Your task to perform on an android device: check android version Image 0: 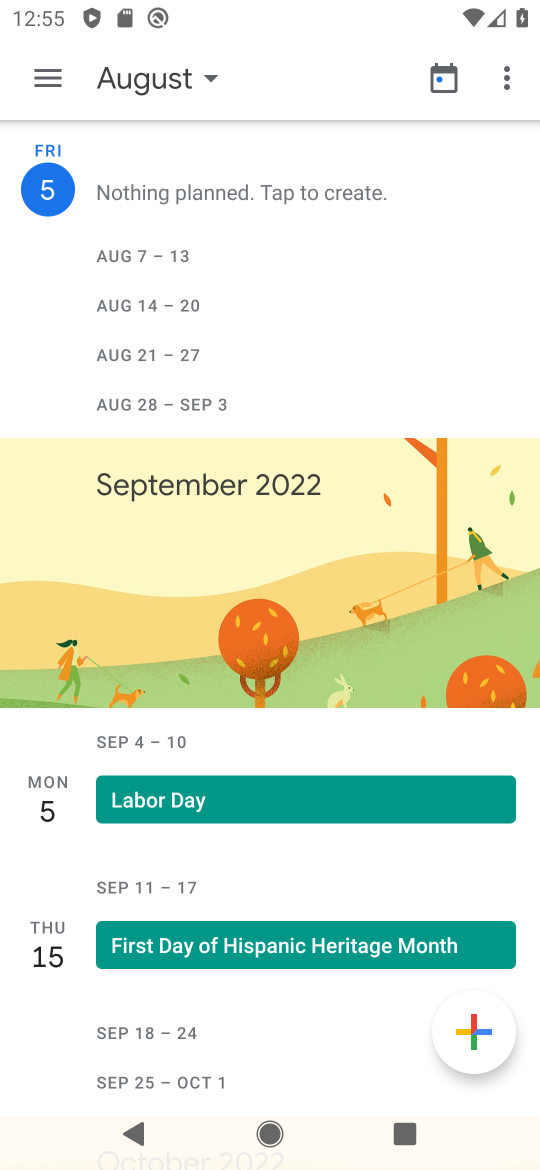
Step 0: press home button
Your task to perform on an android device: check android version Image 1: 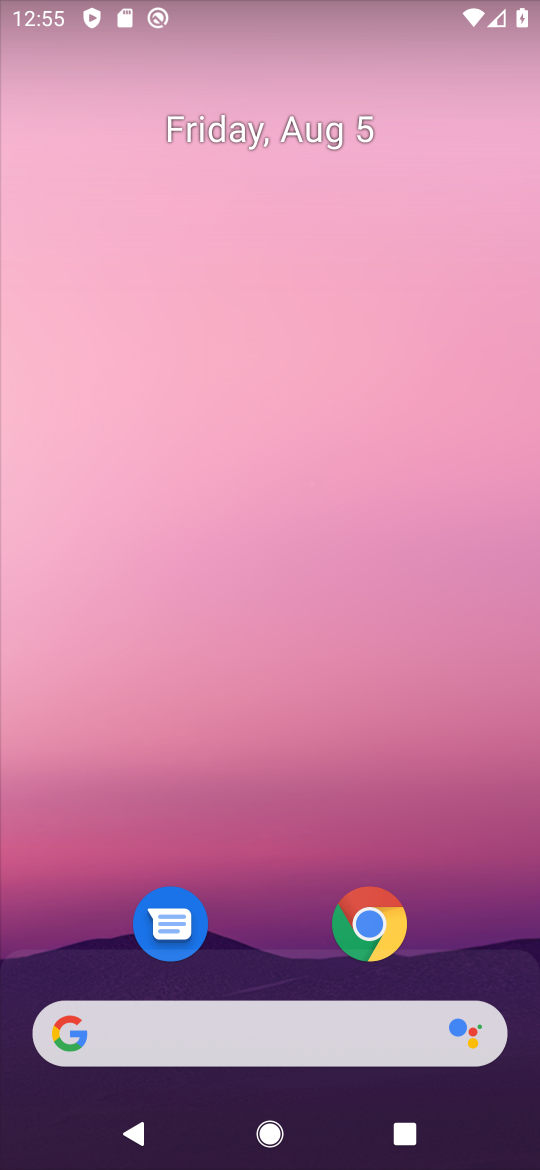
Step 1: drag from (215, 1060) to (345, 153)
Your task to perform on an android device: check android version Image 2: 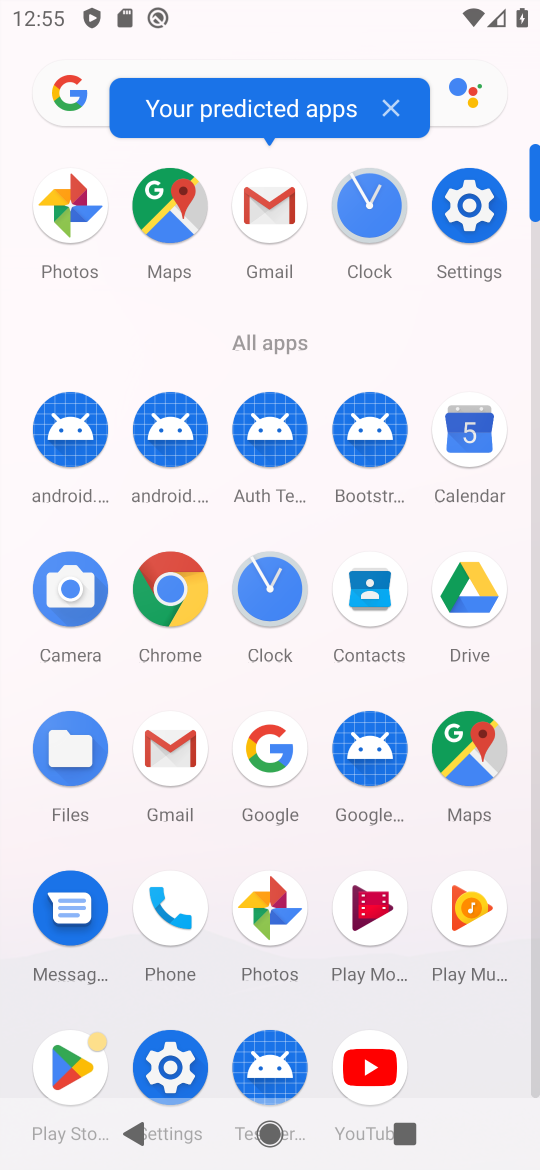
Step 2: click (468, 211)
Your task to perform on an android device: check android version Image 3: 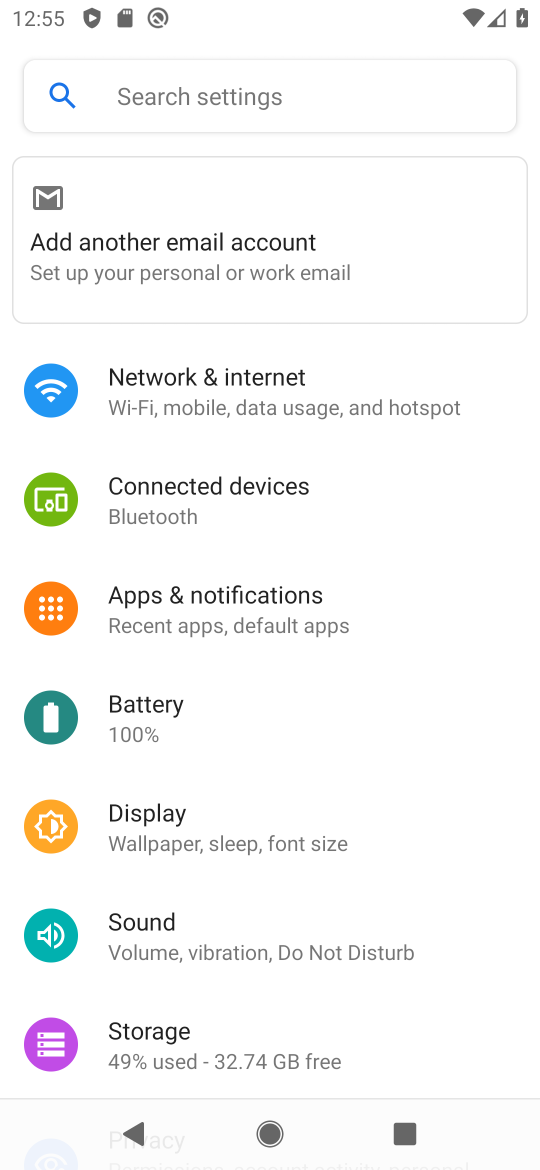
Step 3: drag from (231, 979) to (404, 735)
Your task to perform on an android device: check android version Image 4: 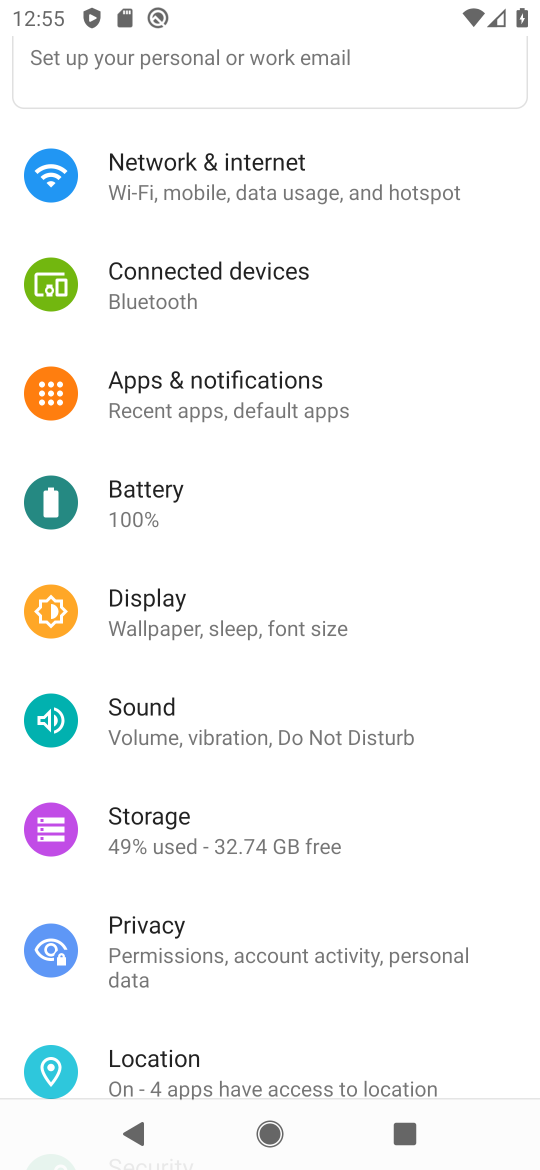
Step 4: drag from (269, 1029) to (391, 846)
Your task to perform on an android device: check android version Image 5: 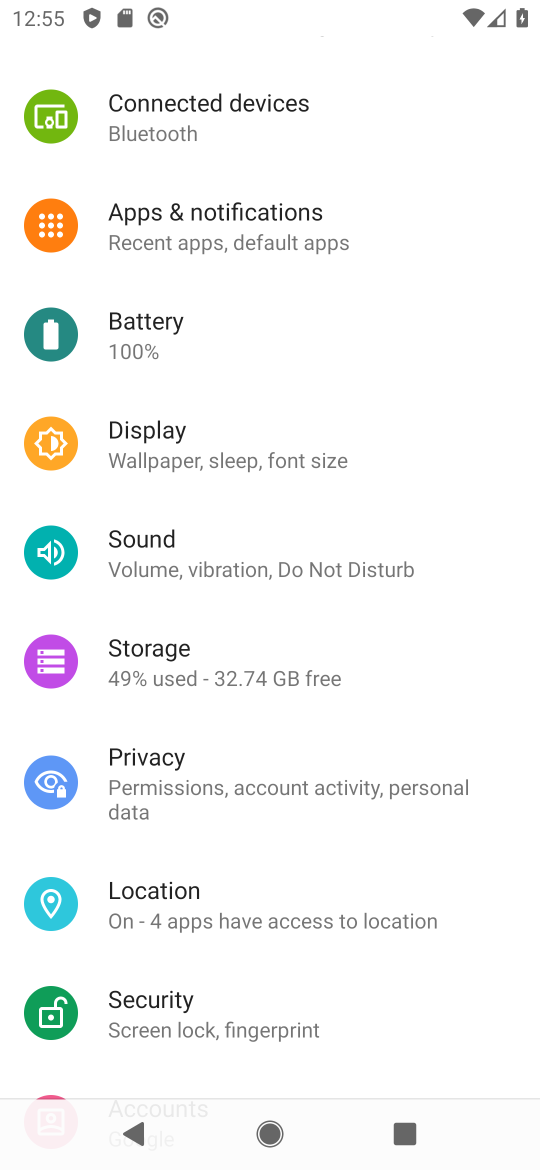
Step 5: drag from (277, 976) to (350, 794)
Your task to perform on an android device: check android version Image 6: 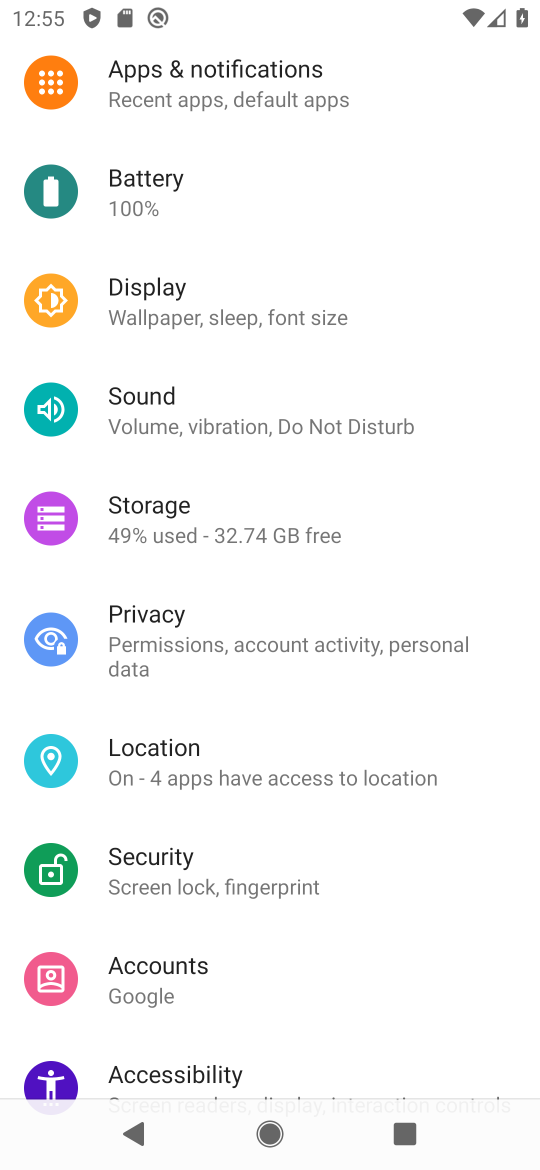
Step 6: drag from (201, 1008) to (314, 806)
Your task to perform on an android device: check android version Image 7: 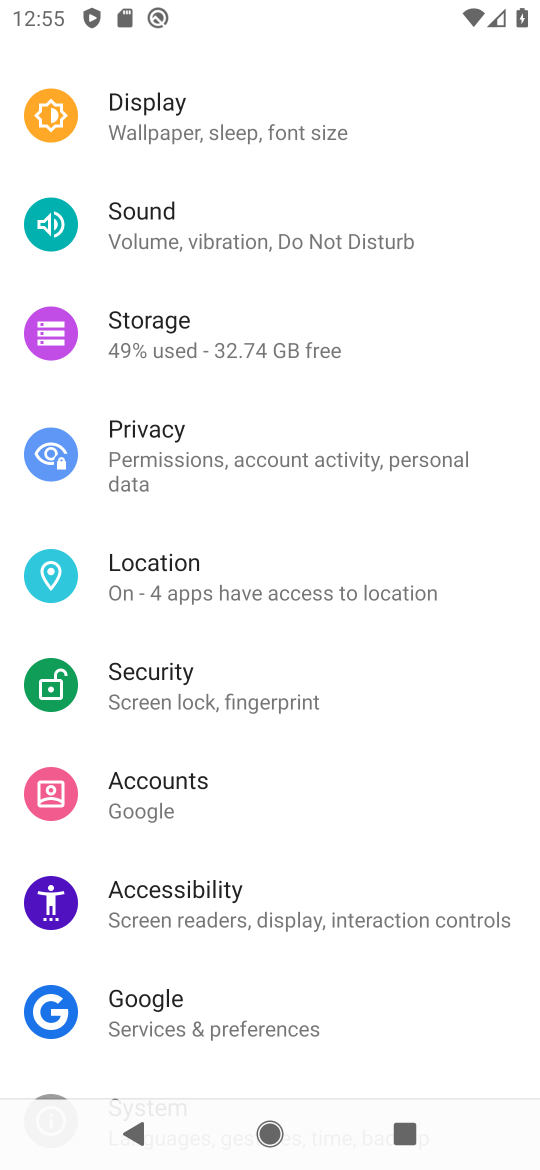
Step 7: drag from (227, 970) to (342, 781)
Your task to perform on an android device: check android version Image 8: 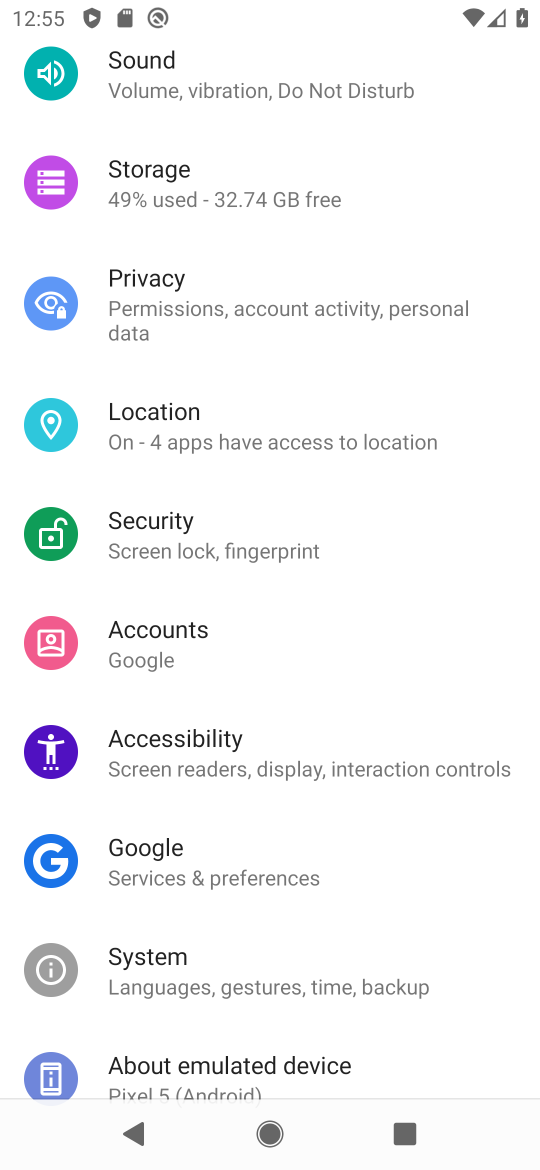
Step 8: drag from (221, 1032) to (389, 845)
Your task to perform on an android device: check android version Image 9: 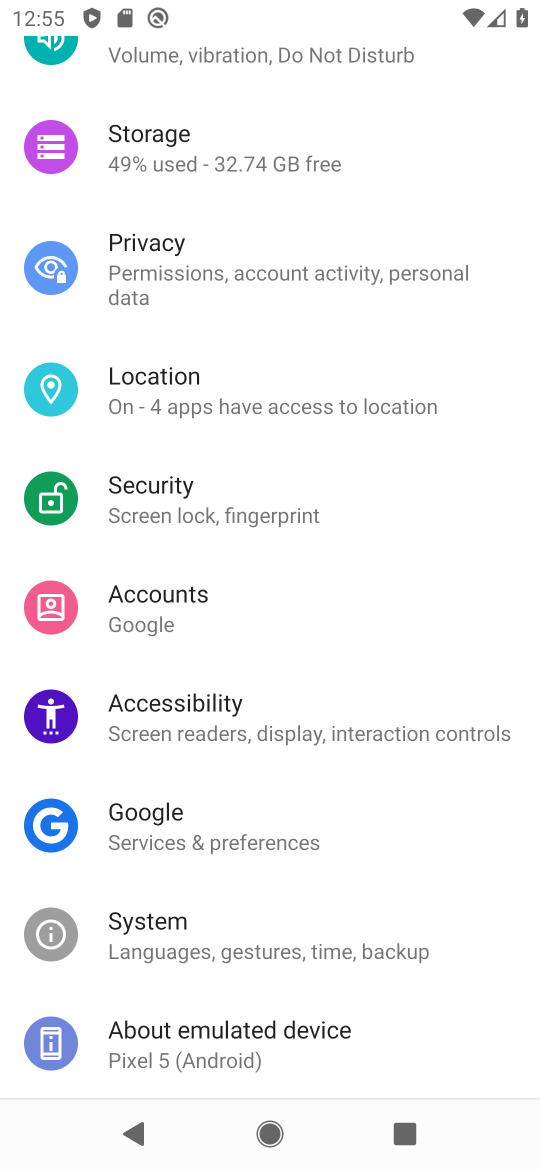
Step 9: click (223, 1046)
Your task to perform on an android device: check android version Image 10: 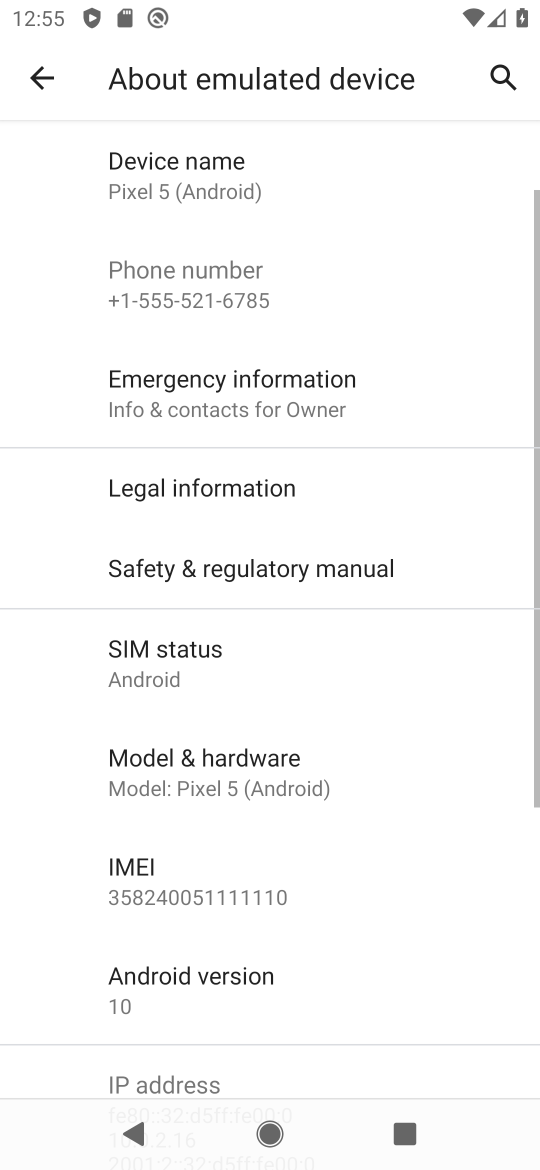
Step 10: drag from (270, 831) to (357, 682)
Your task to perform on an android device: check android version Image 11: 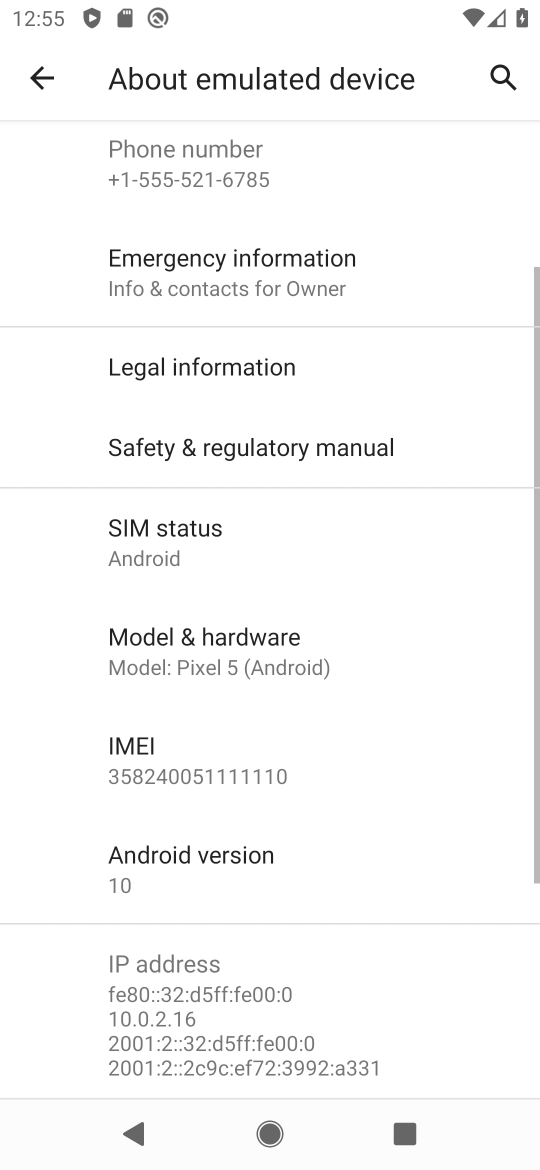
Step 11: click (243, 862)
Your task to perform on an android device: check android version Image 12: 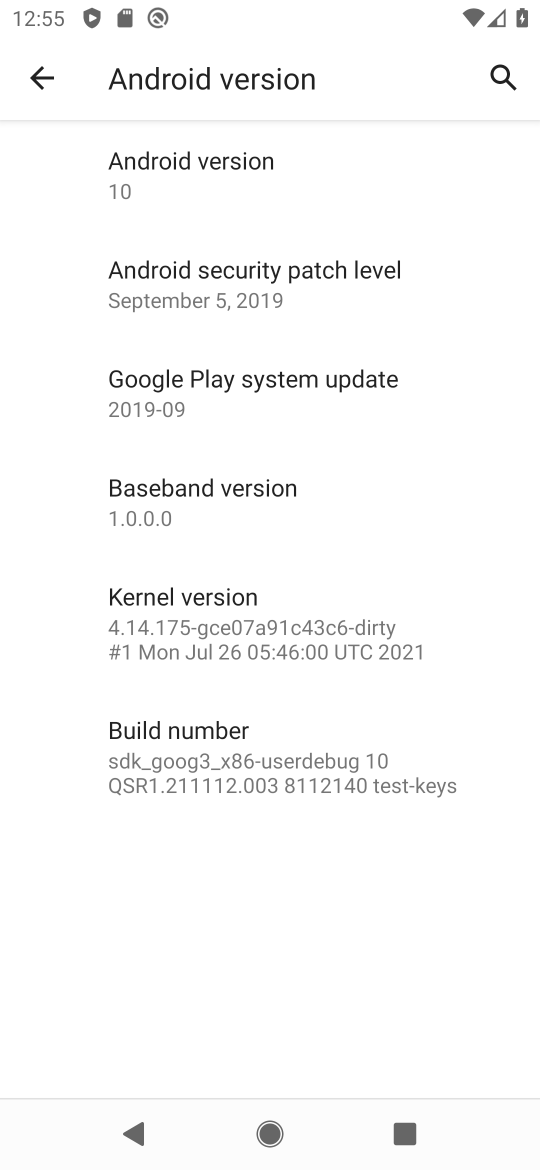
Step 12: click (223, 184)
Your task to perform on an android device: check android version Image 13: 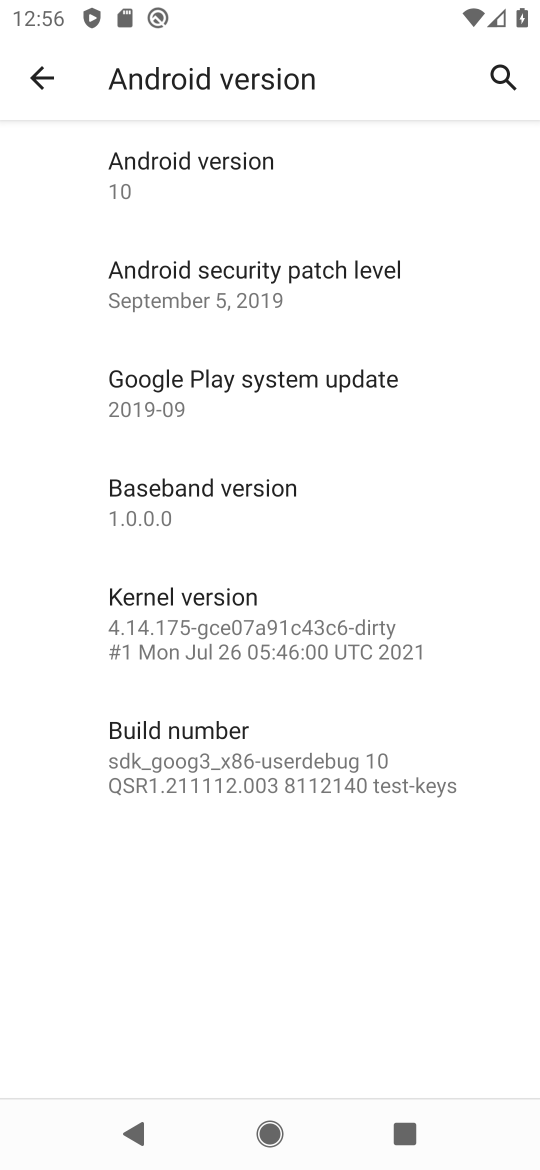
Step 13: task complete